Your task to perform on an android device: set an alarm Image 0: 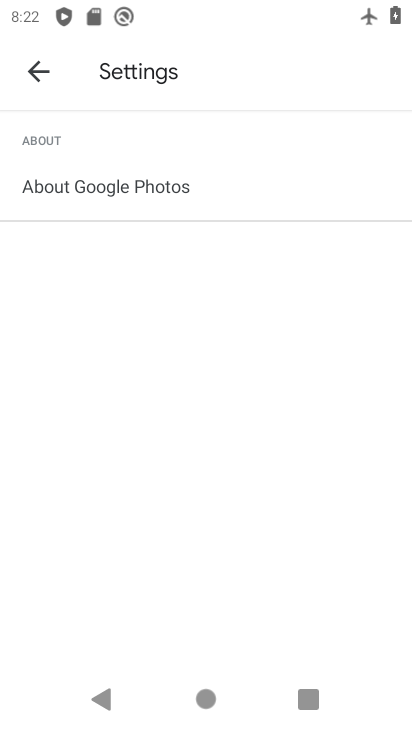
Step 0: press home button
Your task to perform on an android device: set an alarm Image 1: 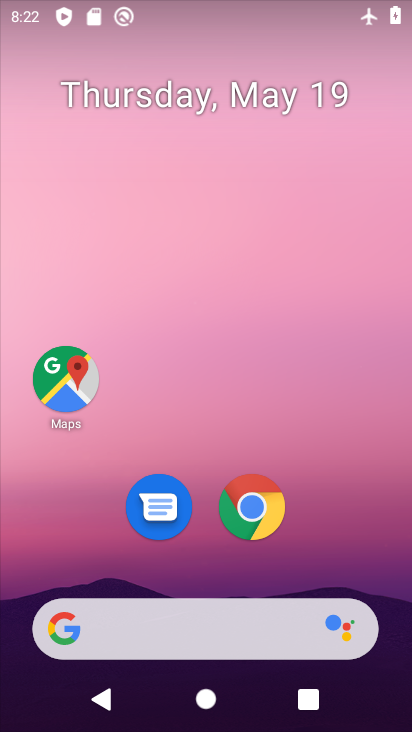
Step 1: drag from (228, 703) to (225, 201)
Your task to perform on an android device: set an alarm Image 2: 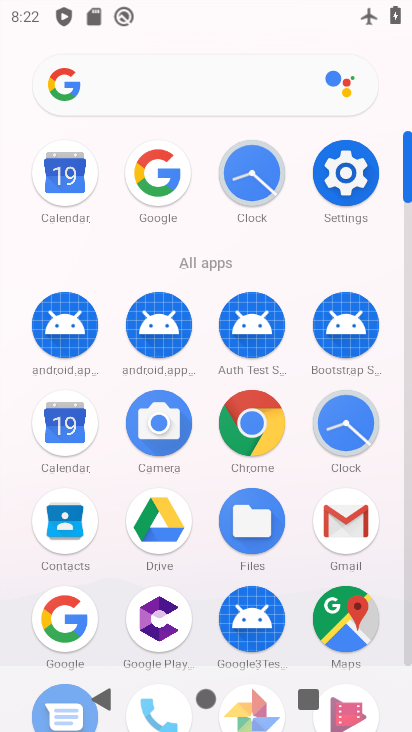
Step 2: click (346, 429)
Your task to perform on an android device: set an alarm Image 3: 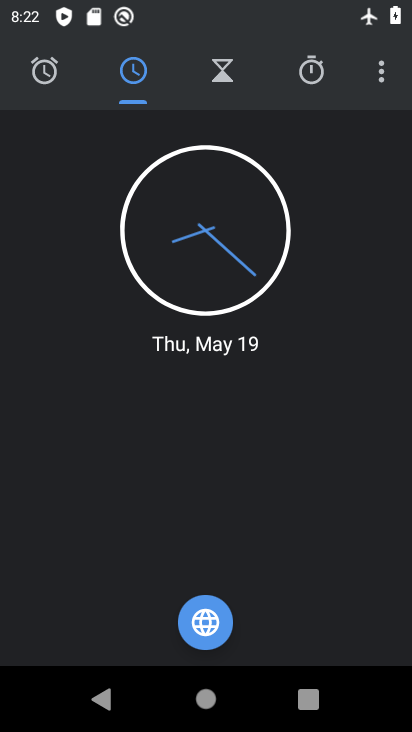
Step 3: click (36, 73)
Your task to perform on an android device: set an alarm Image 4: 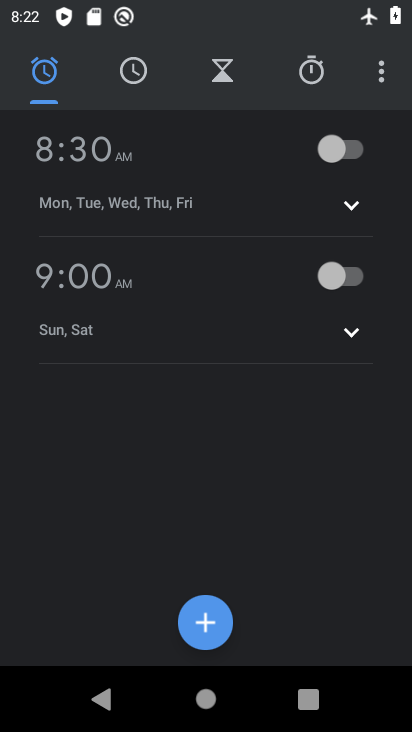
Step 4: click (198, 620)
Your task to perform on an android device: set an alarm Image 5: 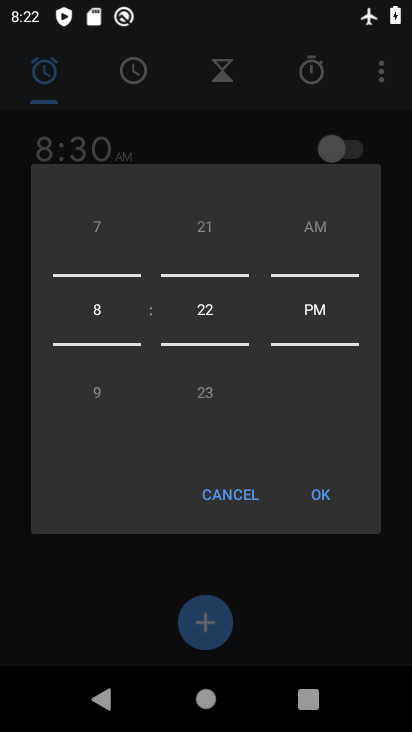
Step 5: click (208, 229)
Your task to perform on an android device: set an alarm Image 6: 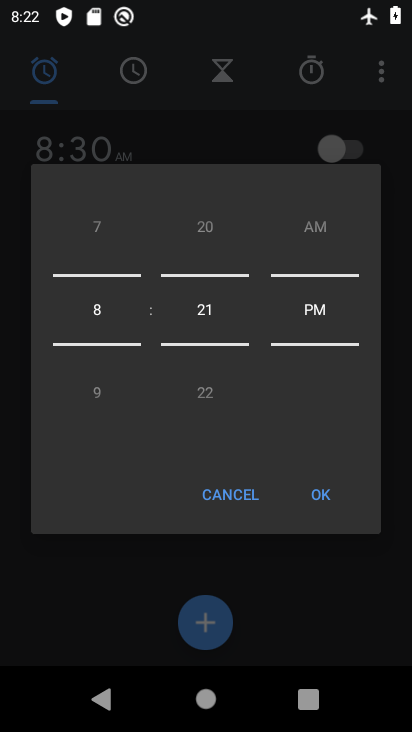
Step 6: drag from (207, 232) to (215, 348)
Your task to perform on an android device: set an alarm Image 7: 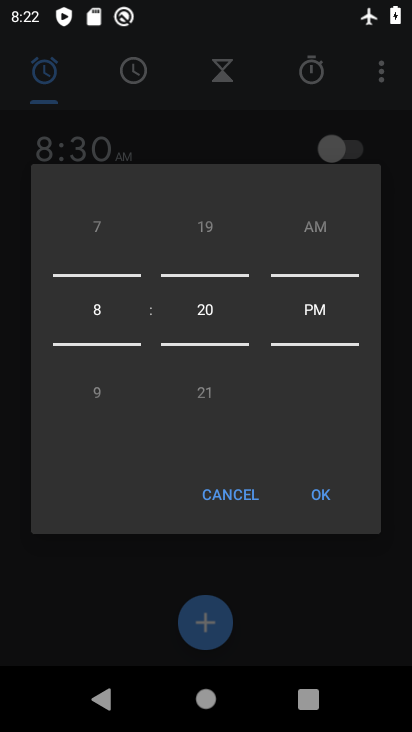
Step 7: click (323, 494)
Your task to perform on an android device: set an alarm Image 8: 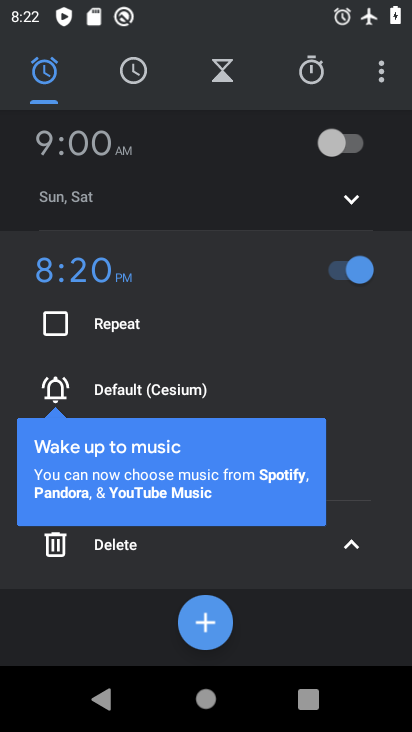
Step 8: task complete